Your task to perform on an android device: Go to notification settings Image 0: 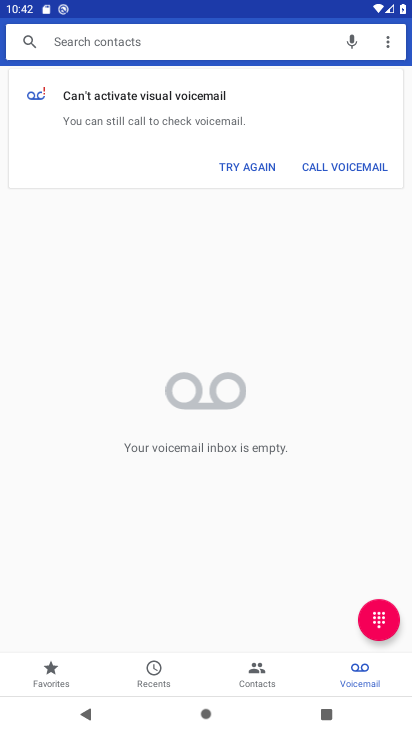
Step 0: press home button
Your task to perform on an android device: Go to notification settings Image 1: 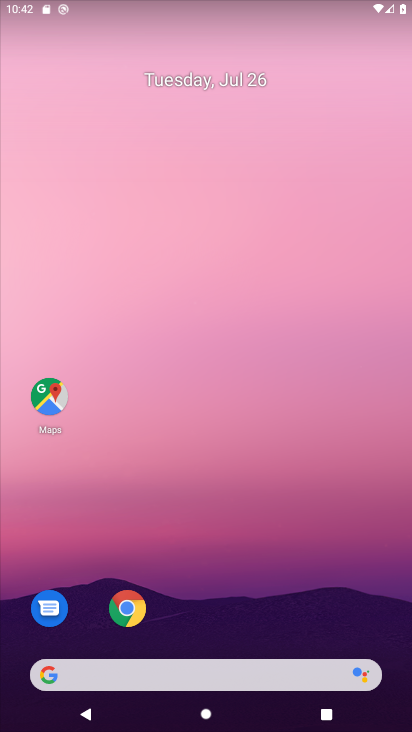
Step 1: drag from (319, 583) to (324, 118)
Your task to perform on an android device: Go to notification settings Image 2: 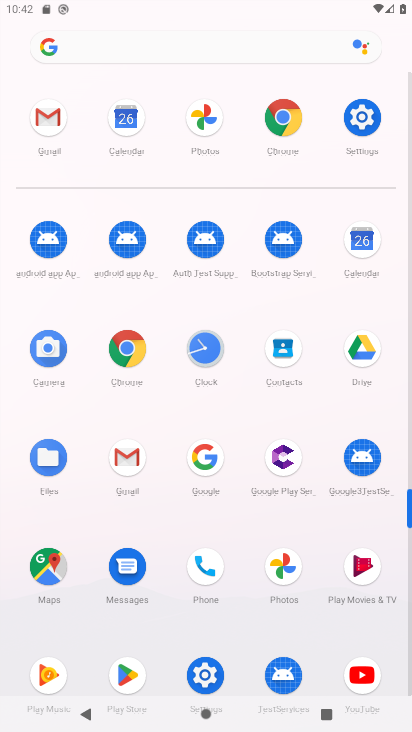
Step 2: click (357, 103)
Your task to perform on an android device: Go to notification settings Image 3: 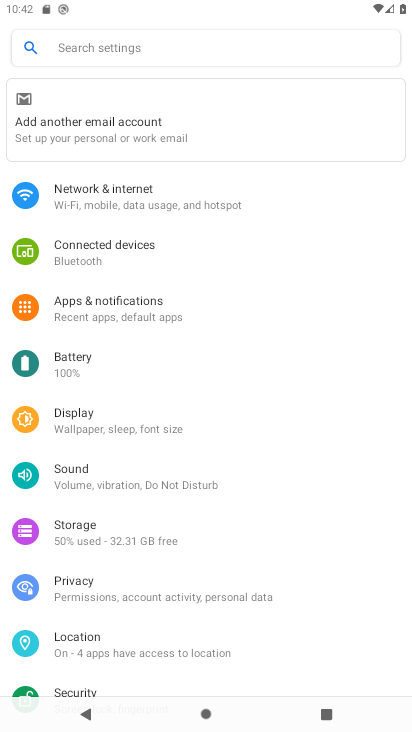
Step 3: click (151, 315)
Your task to perform on an android device: Go to notification settings Image 4: 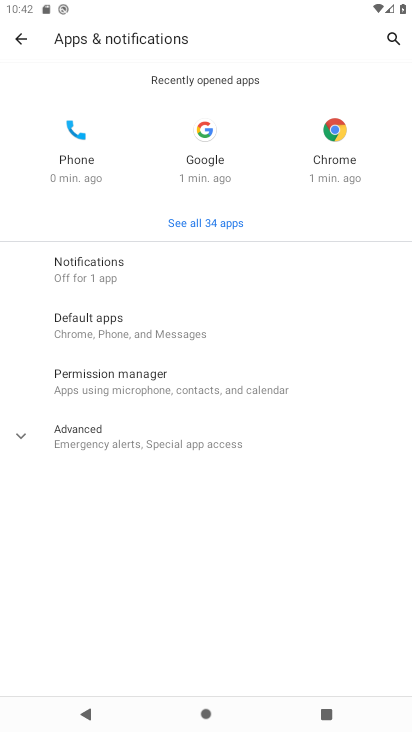
Step 4: click (94, 272)
Your task to perform on an android device: Go to notification settings Image 5: 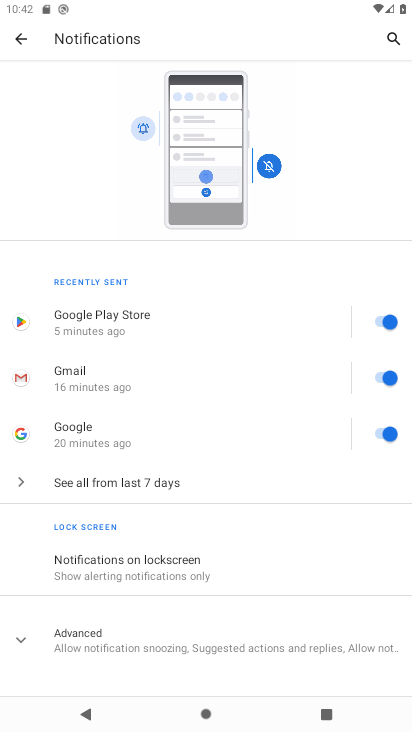
Step 5: task complete